Your task to perform on an android device: Show me productivity apps on the Play Store Image 0: 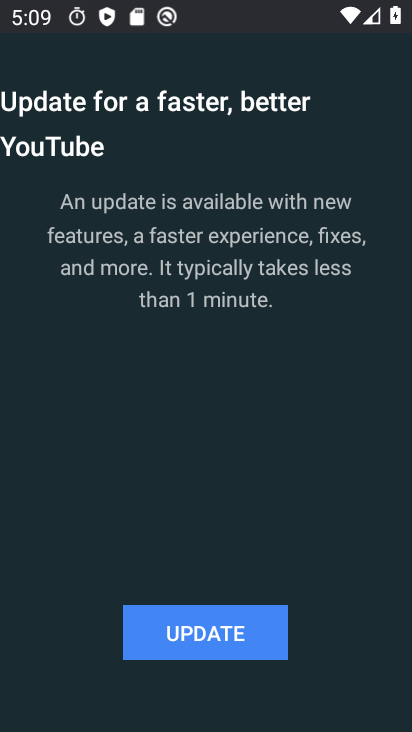
Step 0: press home button
Your task to perform on an android device: Show me productivity apps on the Play Store Image 1: 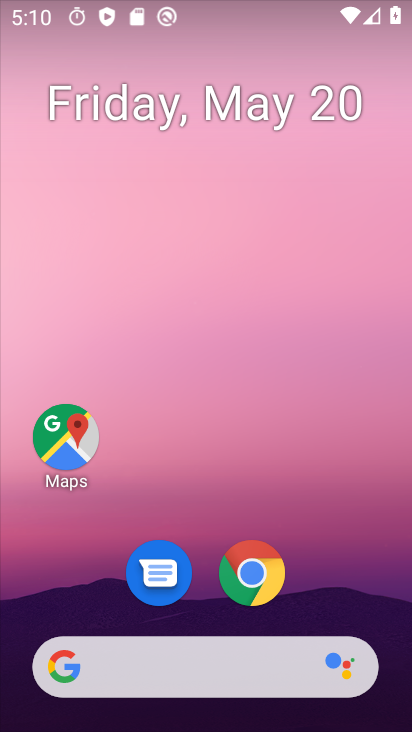
Step 1: drag from (320, 448) to (203, 23)
Your task to perform on an android device: Show me productivity apps on the Play Store Image 2: 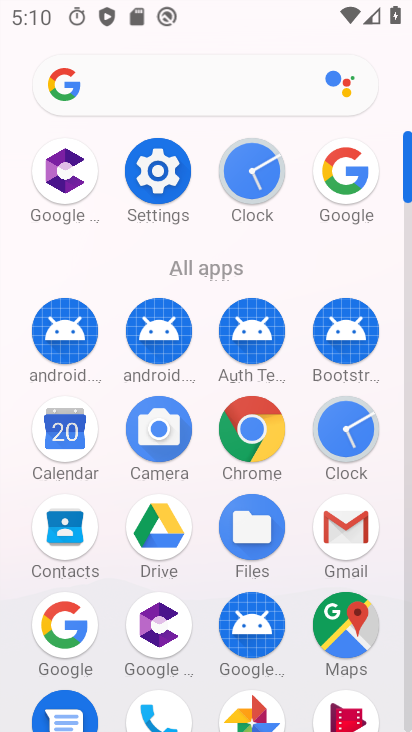
Step 2: drag from (207, 647) to (210, 187)
Your task to perform on an android device: Show me productivity apps on the Play Store Image 3: 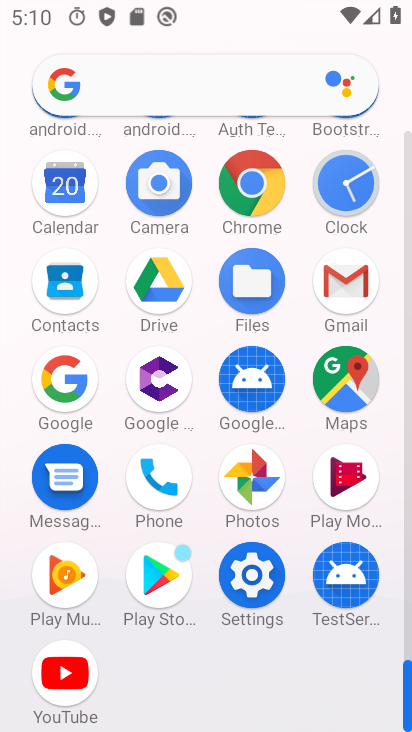
Step 3: click (170, 580)
Your task to perform on an android device: Show me productivity apps on the Play Store Image 4: 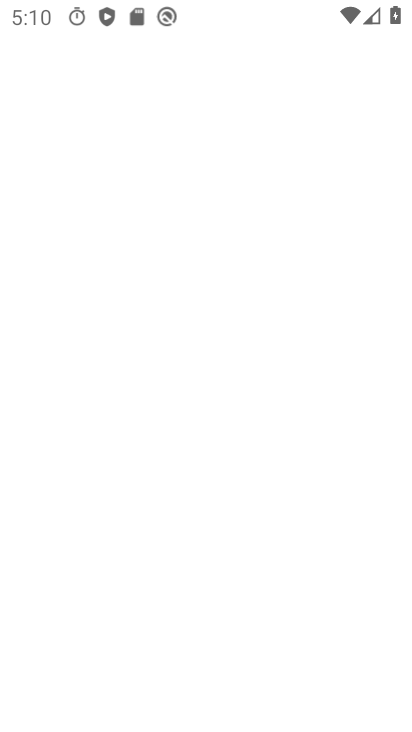
Step 4: click (161, 559)
Your task to perform on an android device: Show me productivity apps on the Play Store Image 5: 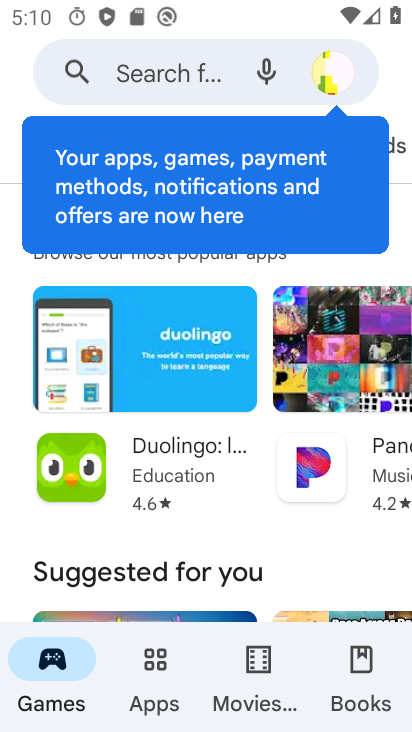
Step 5: click (152, 671)
Your task to perform on an android device: Show me productivity apps on the Play Store Image 6: 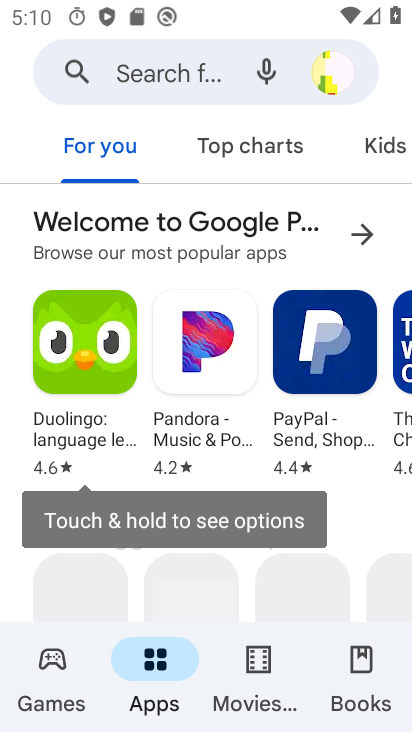
Step 6: click (177, 60)
Your task to perform on an android device: Show me productivity apps on the Play Store Image 7: 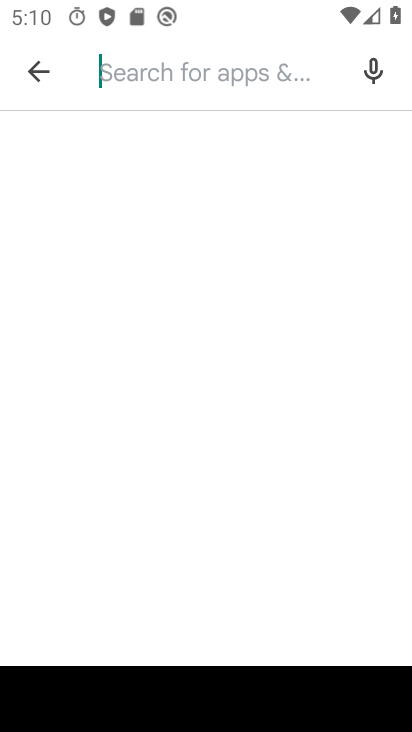
Step 7: type "productivity apps"
Your task to perform on an android device: Show me productivity apps on the Play Store Image 8: 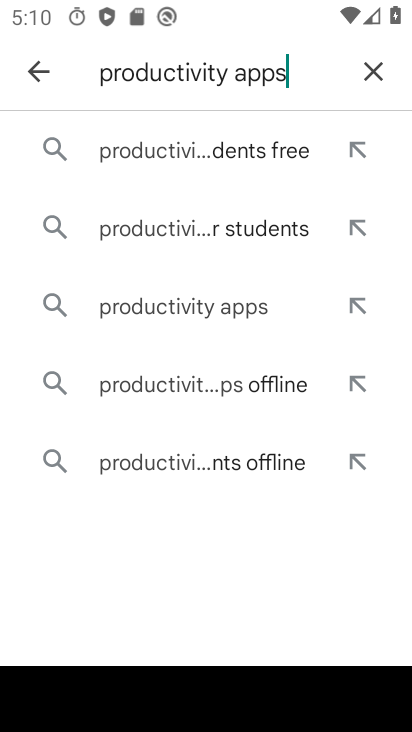
Step 8: click (173, 311)
Your task to perform on an android device: Show me productivity apps on the Play Store Image 9: 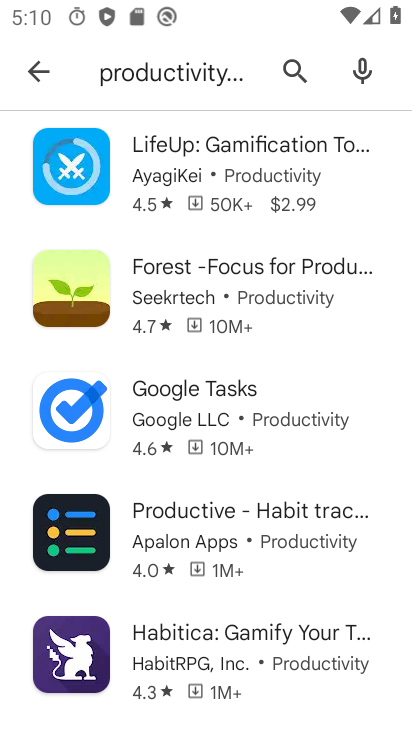
Step 9: task complete